Your task to perform on an android device: Is it going to rain tomorrow? Image 0: 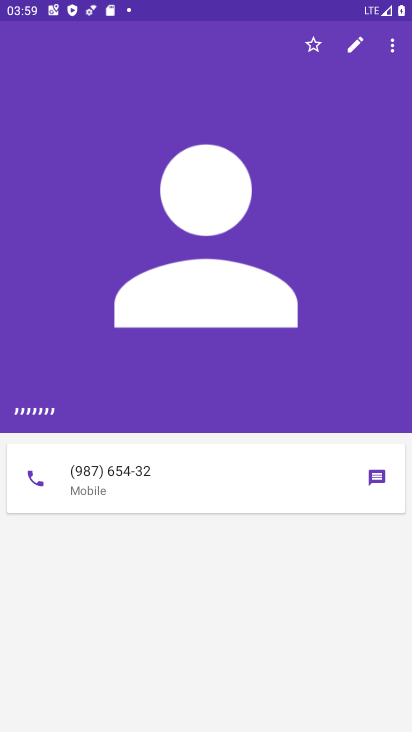
Step 0: press home button
Your task to perform on an android device: Is it going to rain tomorrow? Image 1: 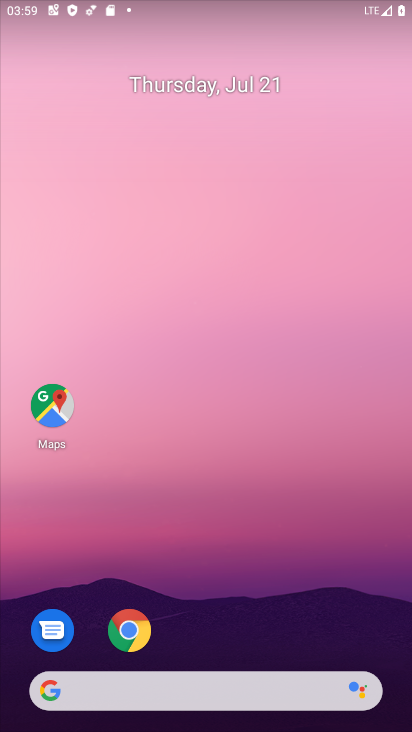
Step 1: click (173, 698)
Your task to perform on an android device: Is it going to rain tomorrow? Image 2: 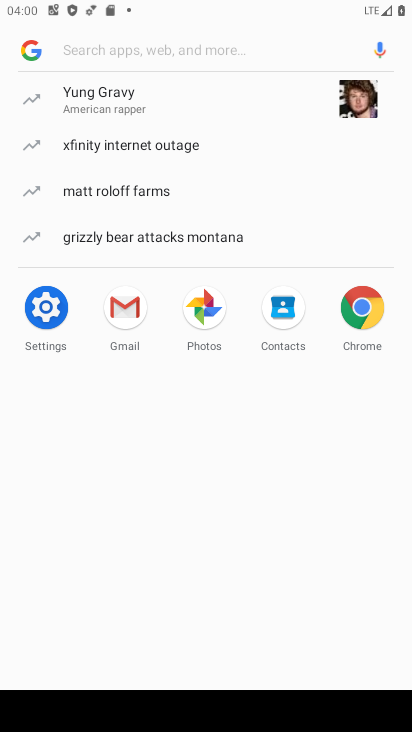
Step 2: type "tomorrow weather"
Your task to perform on an android device: Is it going to rain tomorrow? Image 3: 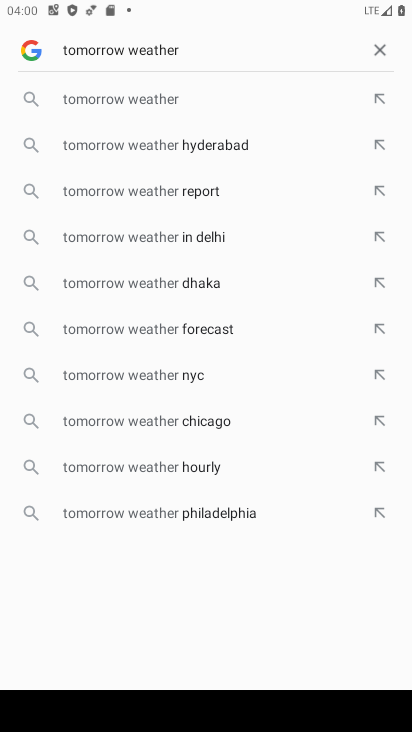
Step 3: click (173, 91)
Your task to perform on an android device: Is it going to rain tomorrow? Image 4: 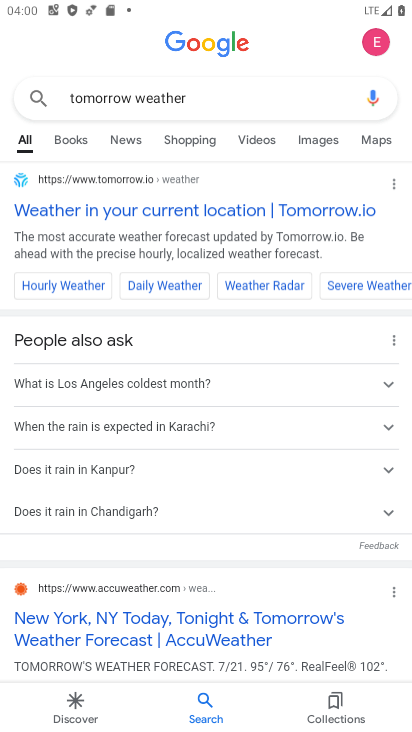
Step 4: task complete